Your task to perform on an android device: Search for sushi restaurants on Maps Image 0: 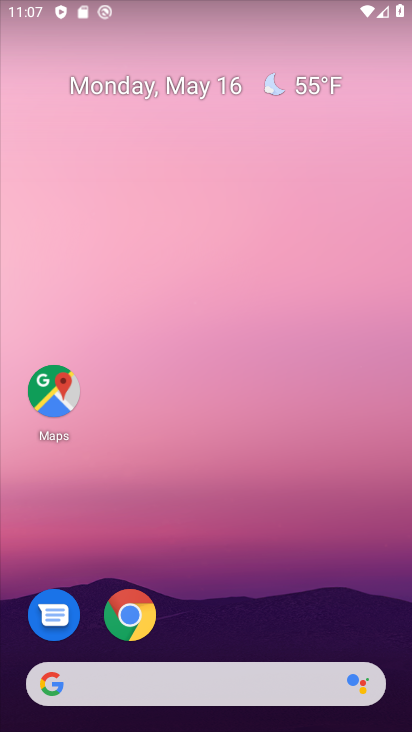
Step 0: click (48, 387)
Your task to perform on an android device: Search for sushi restaurants on Maps Image 1: 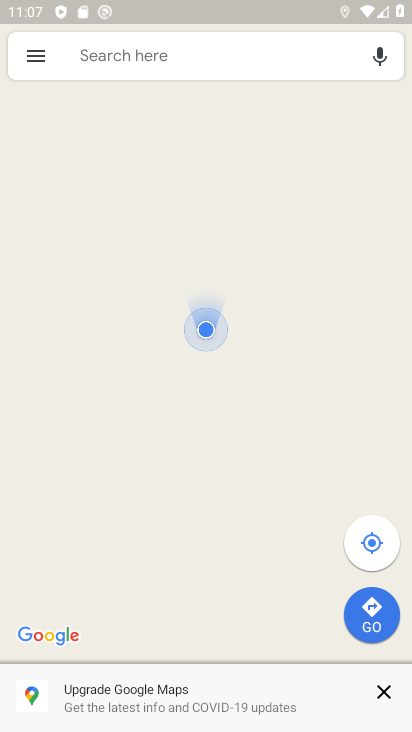
Step 1: click (214, 62)
Your task to perform on an android device: Search for sushi restaurants on Maps Image 2: 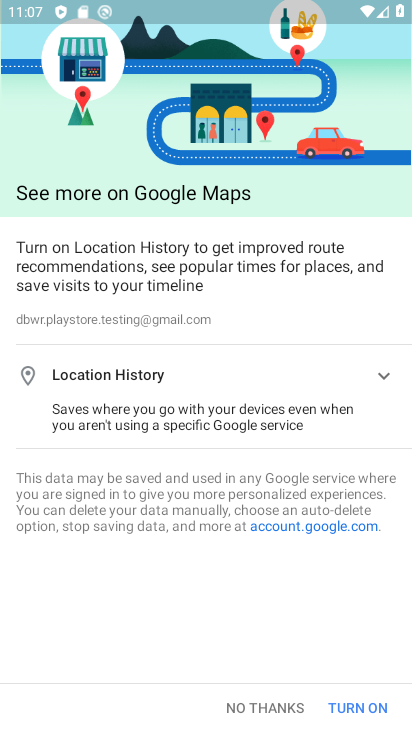
Step 2: click (276, 699)
Your task to perform on an android device: Search for sushi restaurants on Maps Image 3: 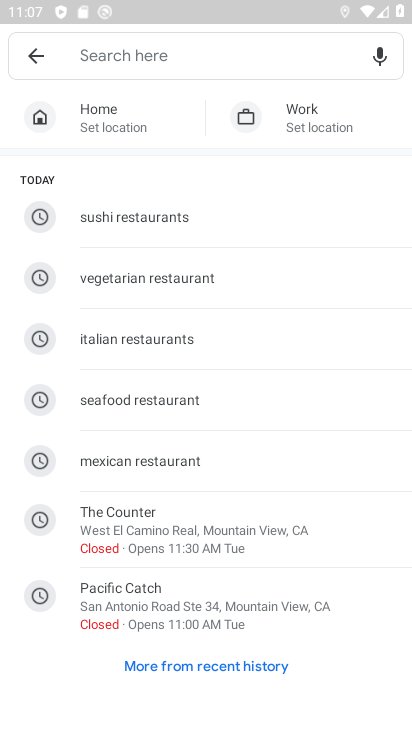
Step 3: click (161, 51)
Your task to perform on an android device: Search for sushi restaurants on Maps Image 4: 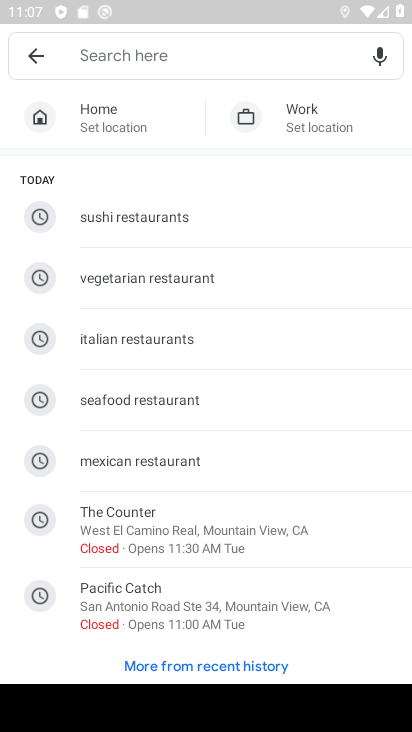
Step 4: type " sushi restaurants "
Your task to perform on an android device: Search for sushi restaurants on Maps Image 5: 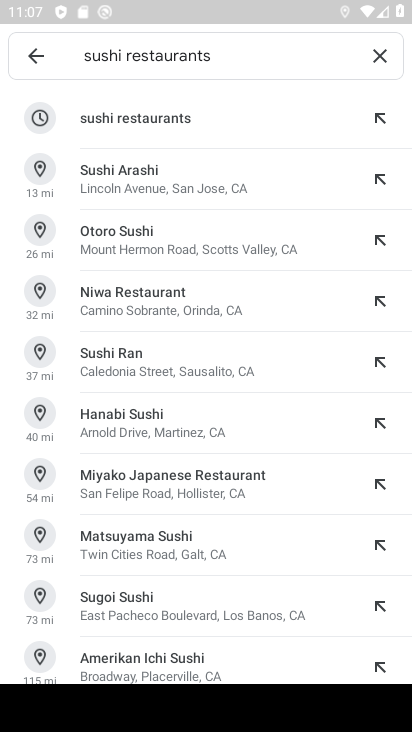
Step 5: click (127, 116)
Your task to perform on an android device: Search for sushi restaurants on Maps Image 6: 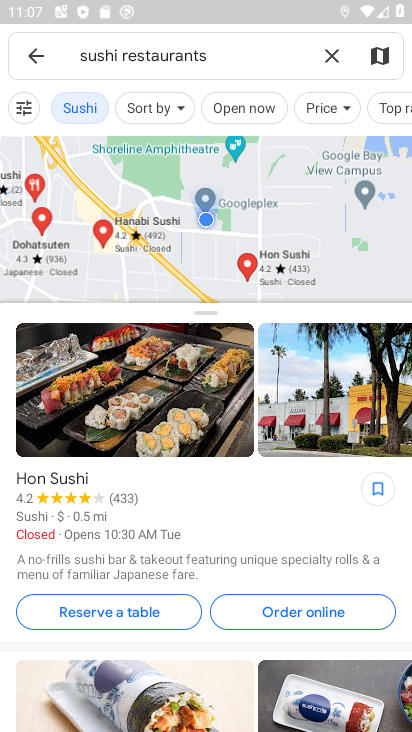
Step 6: task complete